Your task to perform on an android device: Is it going to rain today? Image 0: 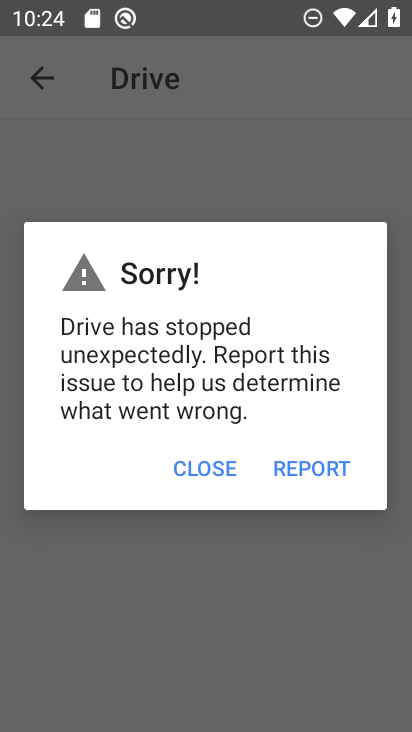
Step 0: press home button
Your task to perform on an android device: Is it going to rain today? Image 1: 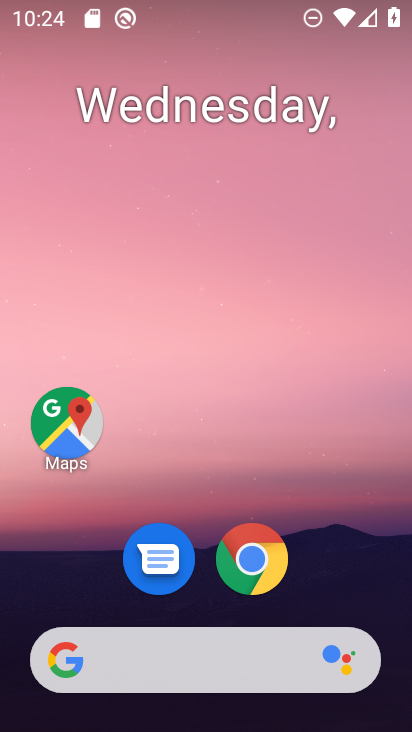
Step 1: click (235, 656)
Your task to perform on an android device: Is it going to rain today? Image 2: 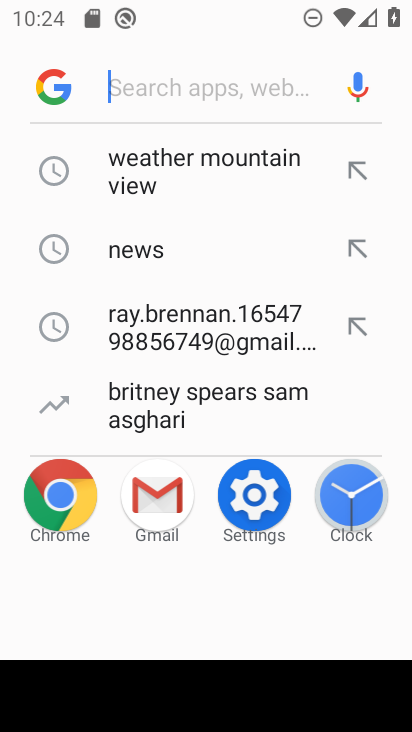
Step 2: click (192, 166)
Your task to perform on an android device: Is it going to rain today? Image 3: 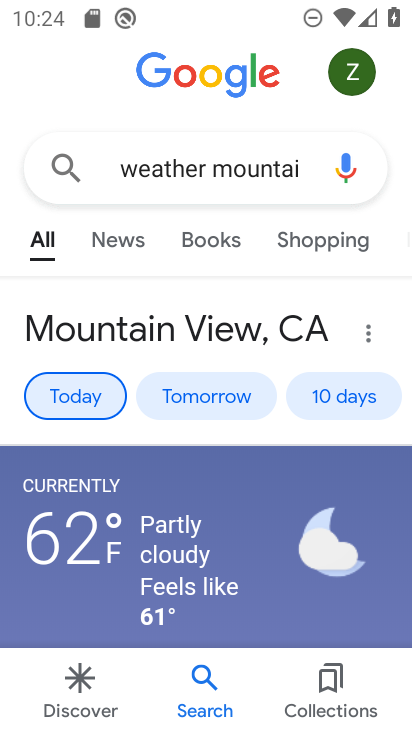
Step 3: task complete